Your task to perform on an android device: Open network settings Image 0: 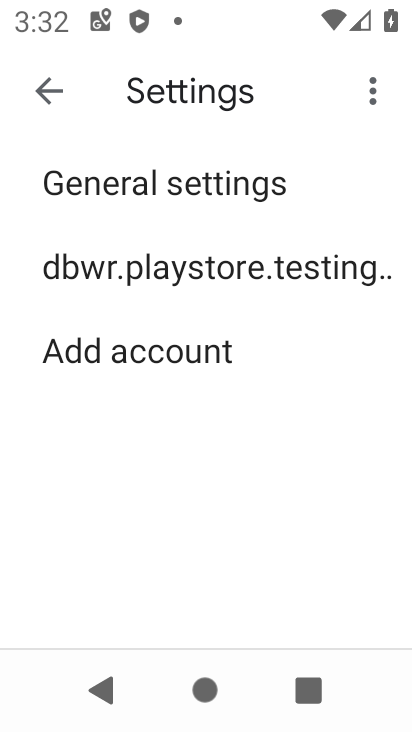
Step 0: press home button
Your task to perform on an android device: Open network settings Image 1: 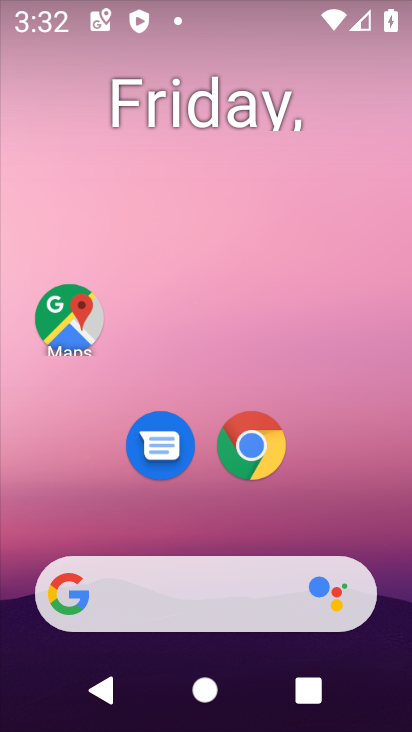
Step 1: click (260, 84)
Your task to perform on an android device: Open network settings Image 2: 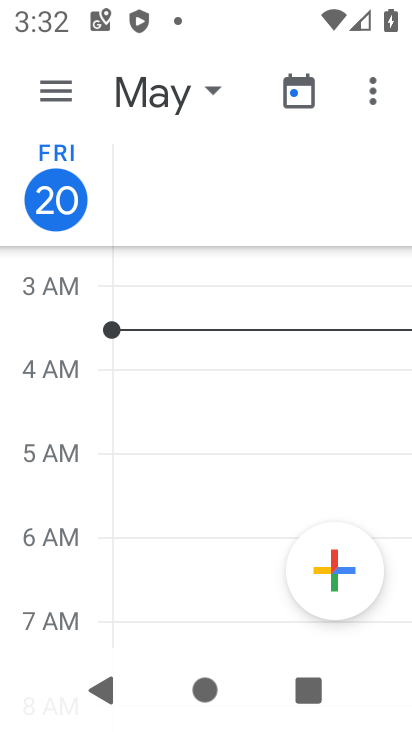
Step 2: press home button
Your task to perform on an android device: Open network settings Image 3: 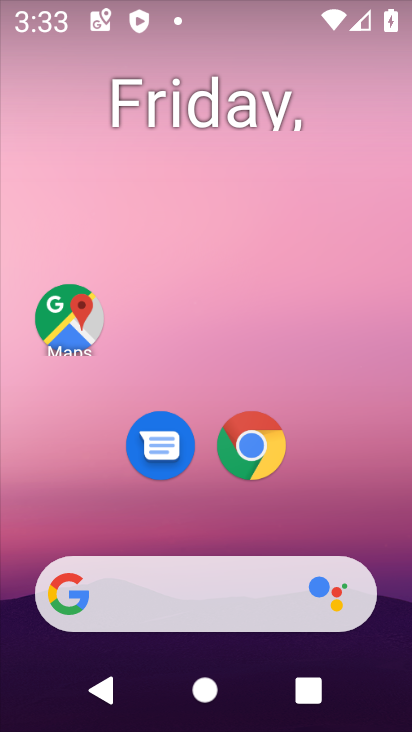
Step 3: drag from (225, 526) to (288, 4)
Your task to perform on an android device: Open network settings Image 4: 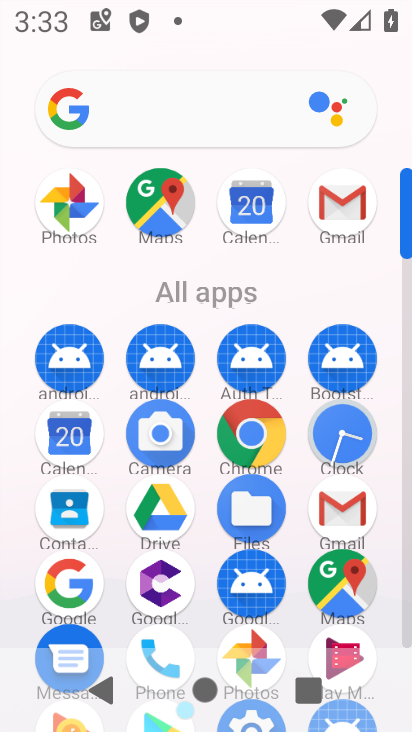
Step 4: drag from (206, 579) to (232, 126)
Your task to perform on an android device: Open network settings Image 5: 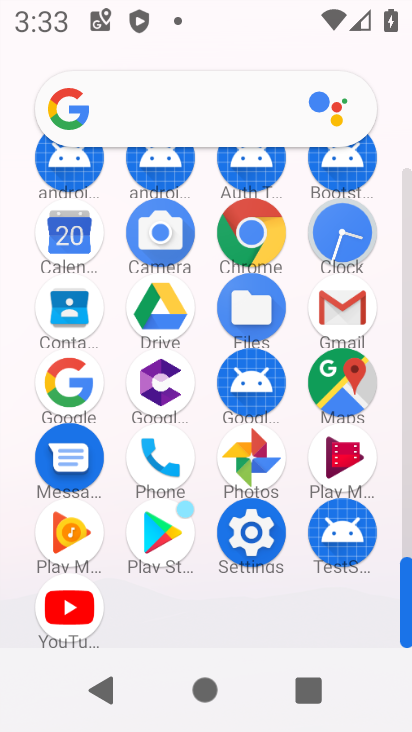
Step 5: click (229, 545)
Your task to perform on an android device: Open network settings Image 6: 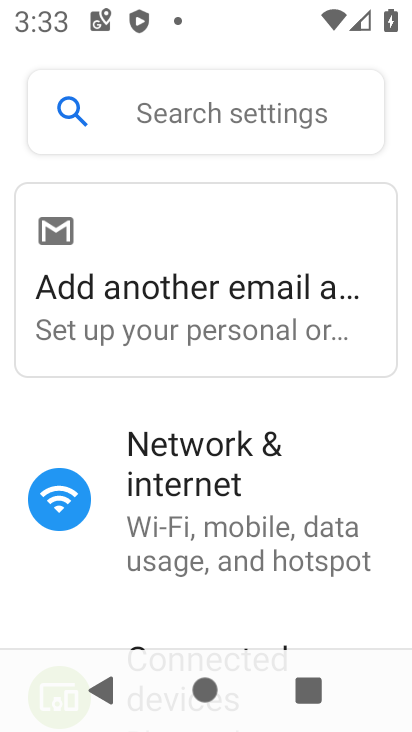
Step 6: click (271, 548)
Your task to perform on an android device: Open network settings Image 7: 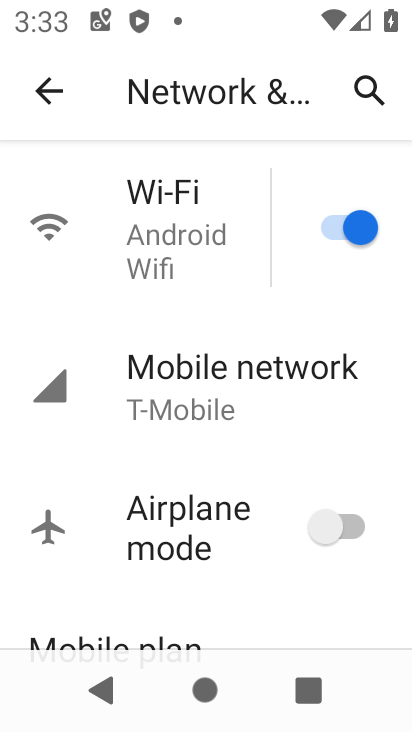
Step 7: task complete